Your task to perform on an android device: find snoozed emails in the gmail app Image 0: 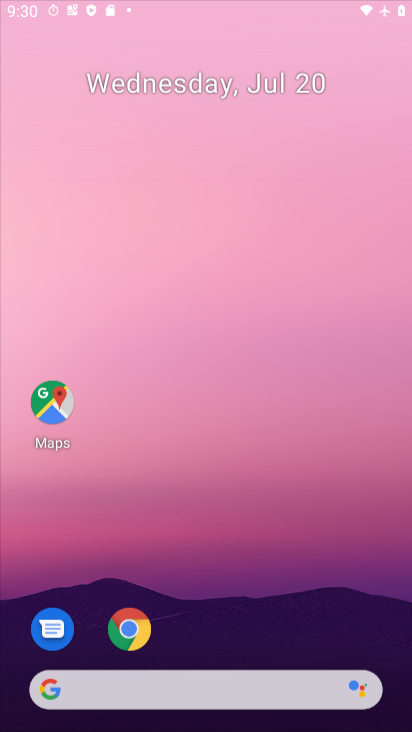
Step 0: press home button
Your task to perform on an android device: find snoozed emails in the gmail app Image 1: 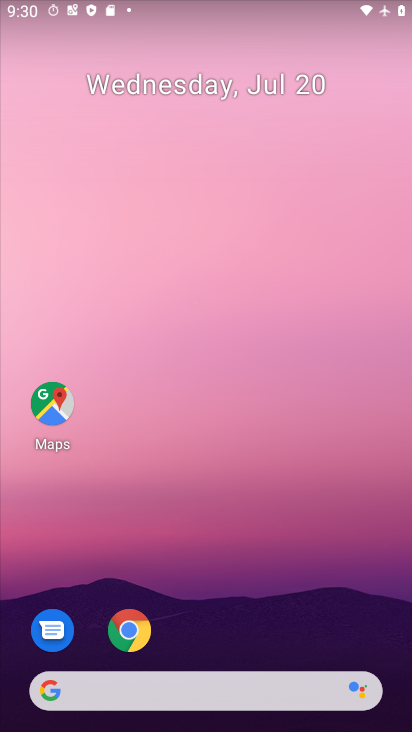
Step 1: drag from (210, 668) to (283, 102)
Your task to perform on an android device: find snoozed emails in the gmail app Image 2: 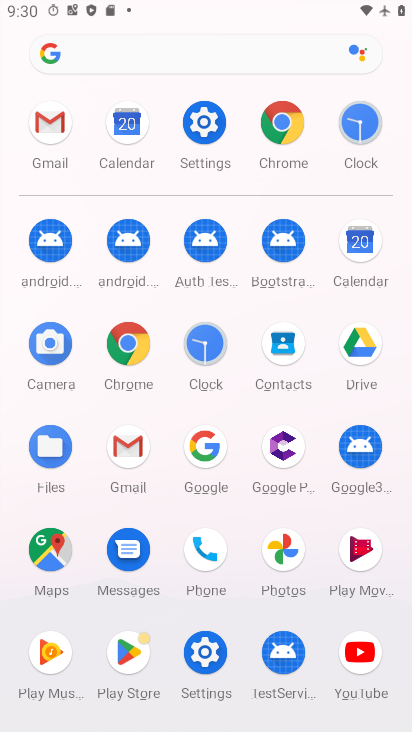
Step 2: click (131, 465)
Your task to perform on an android device: find snoozed emails in the gmail app Image 3: 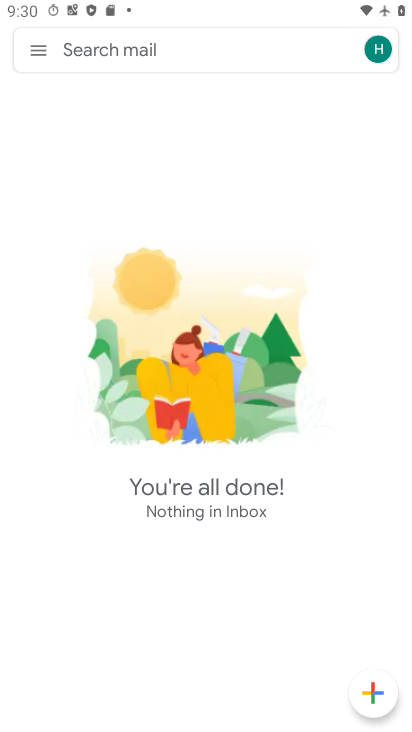
Step 3: click (35, 54)
Your task to perform on an android device: find snoozed emails in the gmail app Image 4: 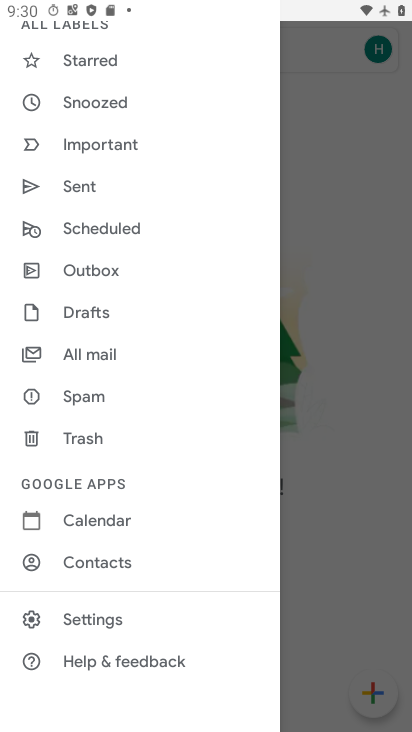
Step 4: click (103, 103)
Your task to perform on an android device: find snoozed emails in the gmail app Image 5: 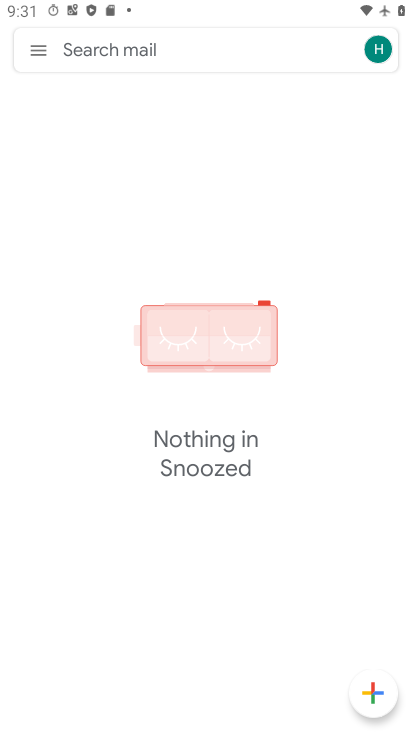
Step 5: task complete